Your task to perform on an android device: Open calendar and show me the first week of next month Image 0: 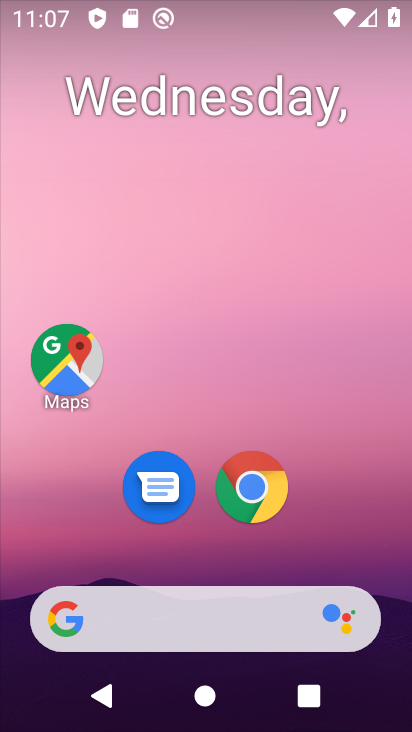
Step 0: drag from (331, 555) to (328, 8)
Your task to perform on an android device: Open calendar and show me the first week of next month Image 1: 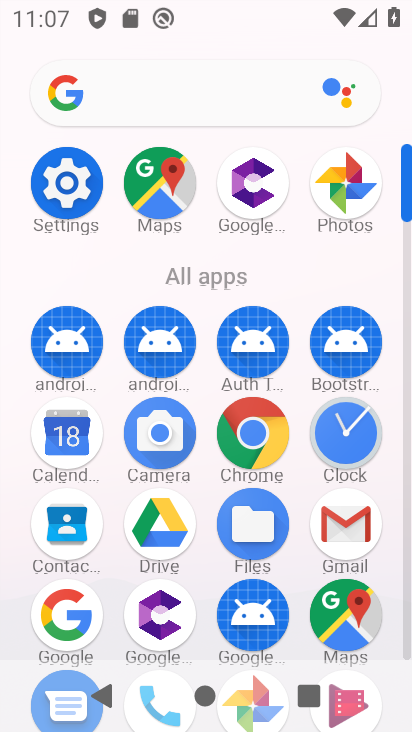
Step 1: click (58, 433)
Your task to perform on an android device: Open calendar and show me the first week of next month Image 2: 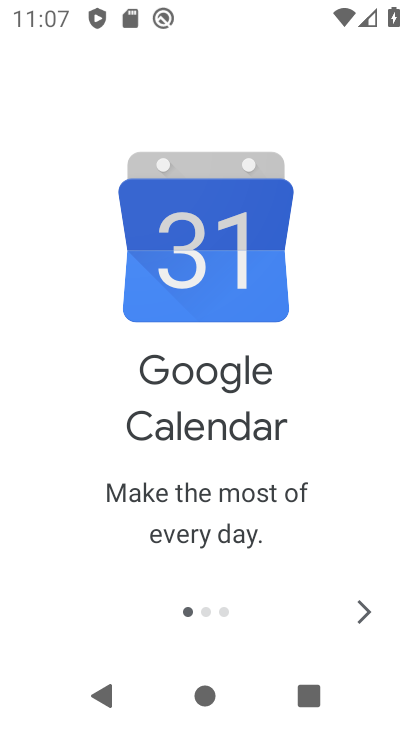
Step 2: click (364, 621)
Your task to perform on an android device: Open calendar and show me the first week of next month Image 3: 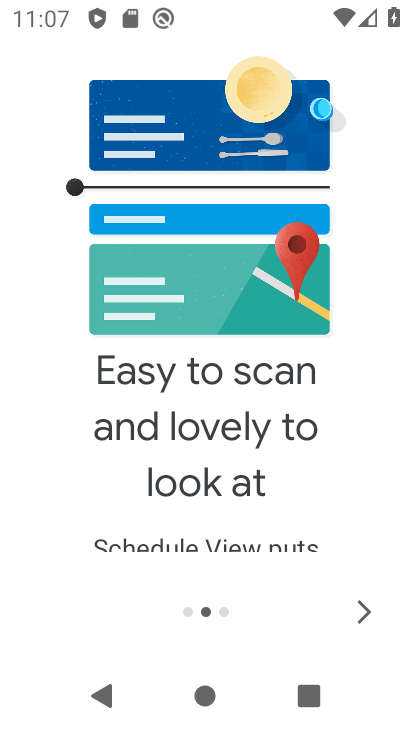
Step 3: click (364, 621)
Your task to perform on an android device: Open calendar and show me the first week of next month Image 4: 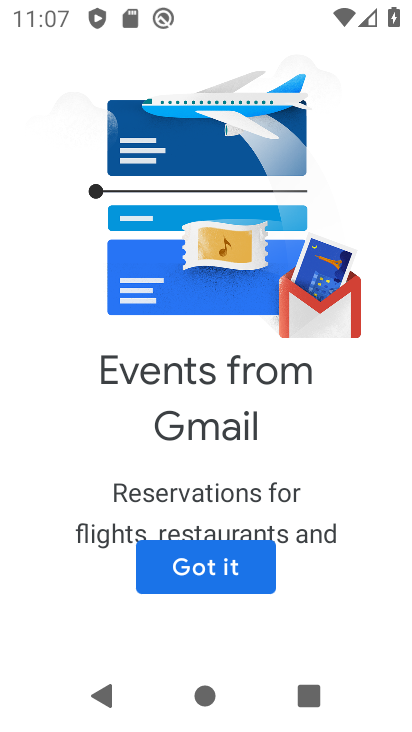
Step 4: click (194, 579)
Your task to perform on an android device: Open calendar and show me the first week of next month Image 5: 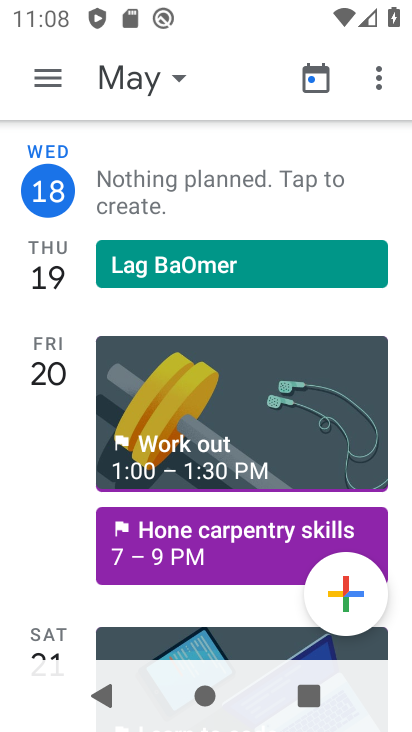
Step 5: click (177, 83)
Your task to perform on an android device: Open calendar and show me the first week of next month Image 6: 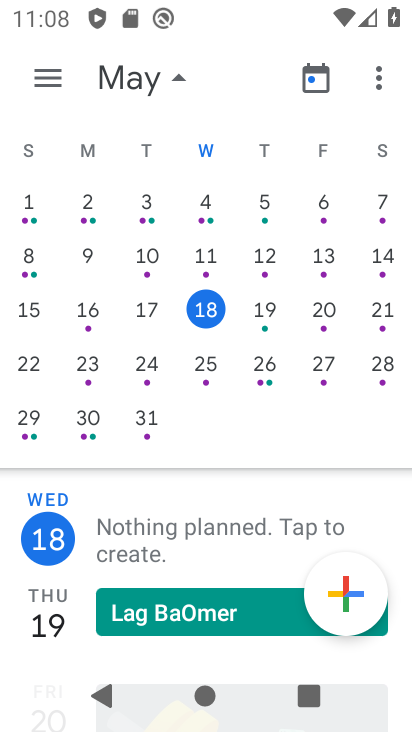
Step 6: drag from (311, 303) to (0, 144)
Your task to perform on an android device: Open calendar and show me the first week of next month Image 7: 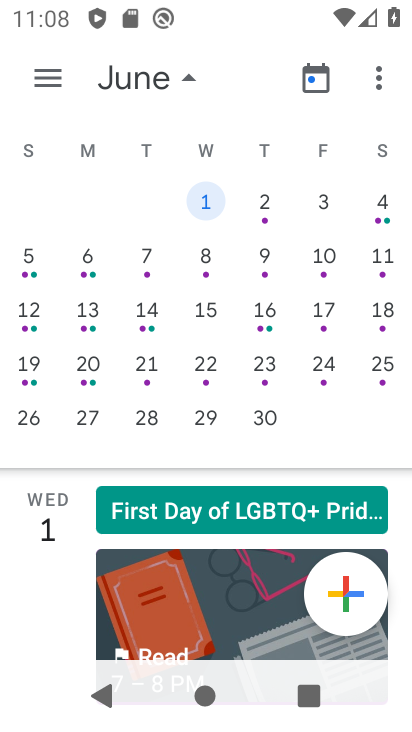
Step 7: click (50, 80)
Your task to perform on an android device: Open calendar and show me the first week of next month Image 8: 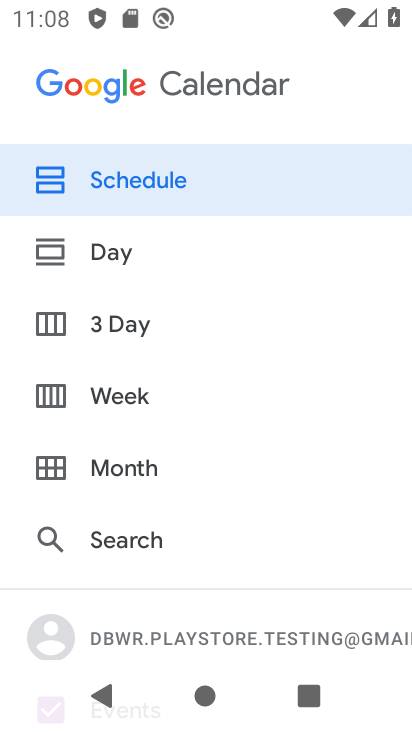
Step 8: click (126, 400)
Your task to perform on an android device: Open calendar and show me the first week of next month Image 9: 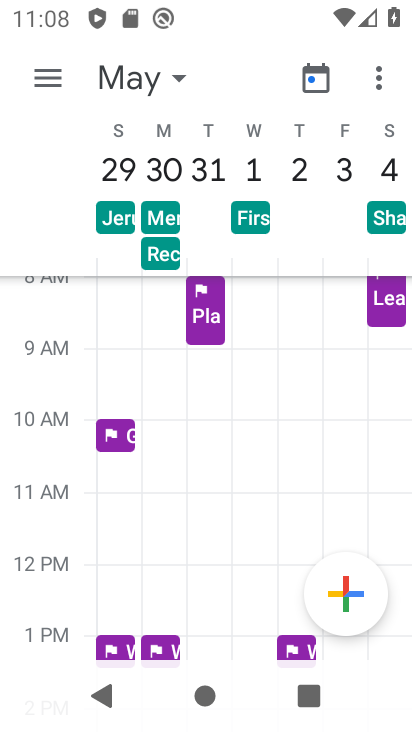
Step 9: task complete